Your task to perform on an android device: Open location settings Image 0: 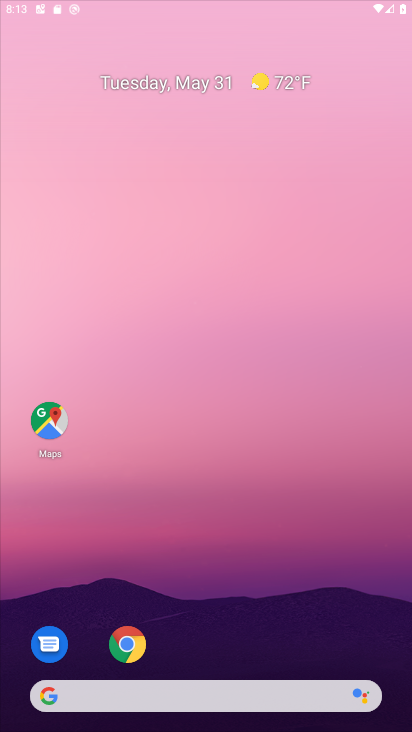
Step 0: press home button
Your task to perform on an android device: Open location settings Image 1: 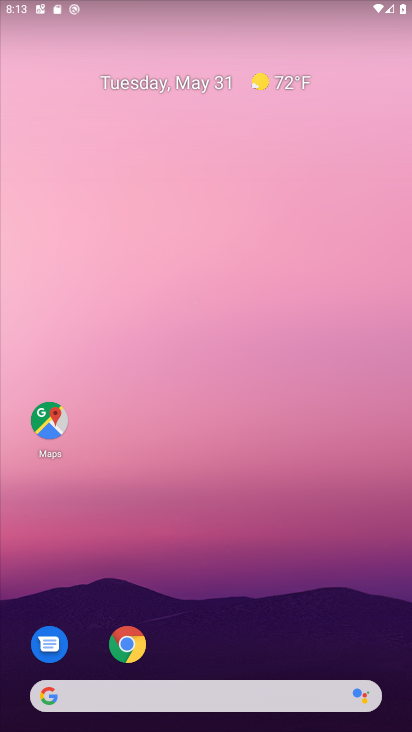
Step 1: drag from (211, 658) to (226, 129)
Your task to perform on an android device: Open location settings Image 2: 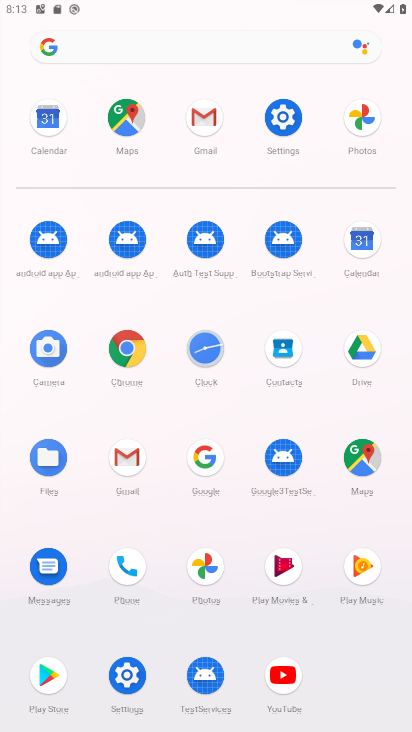
Step 2: click (278, 116)
Your task to perform on an android device: Open location settings Image 3: 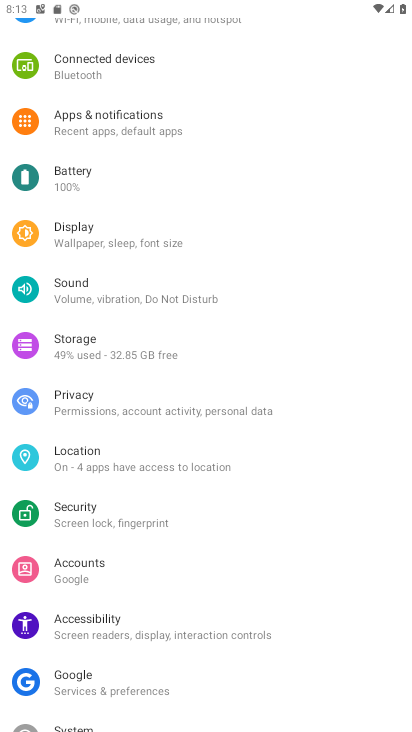
Step 3: click (99, 453)
Your task to perform on an android device: Open location settings Image 4: 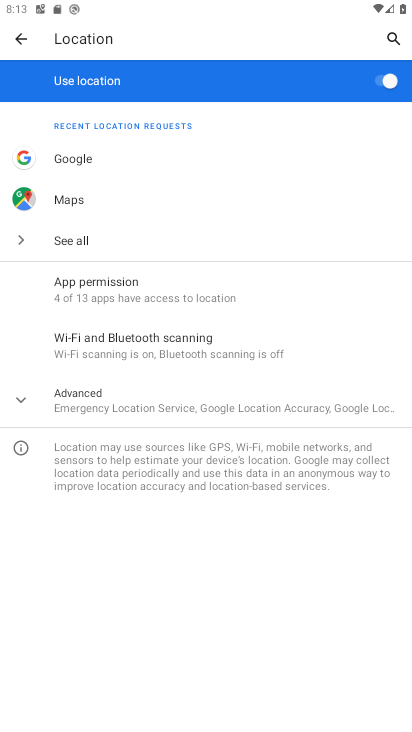
Step 4: click (42, 398)
Your task to perform on an android device: Open location settings Image 5: 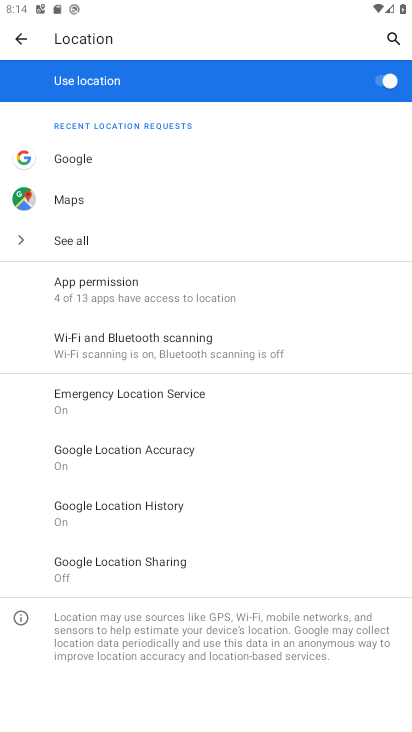
Step 5: task complete